Your task to perform on an android device: Open Google Chrome Image 0: 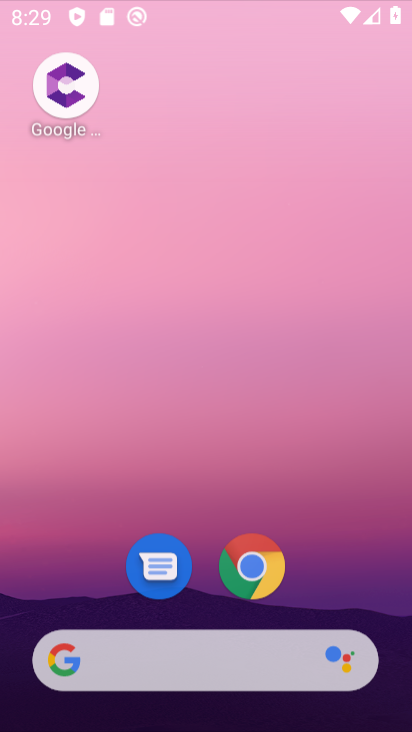
Step 0: click (271, 19)
Your task to perform on an android device: Open Google Chrome Image 1: 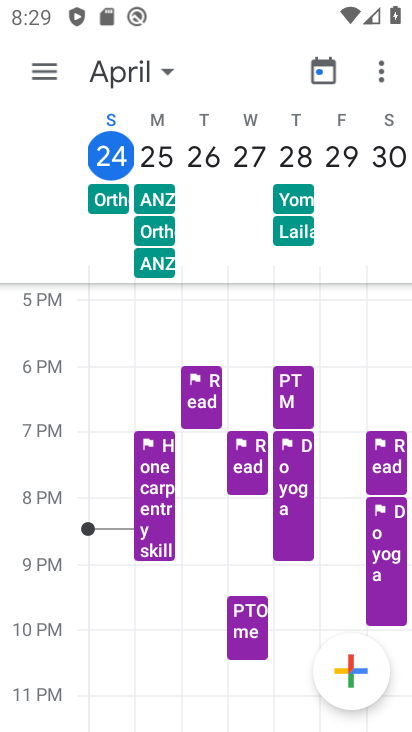
Step 1: press home button
Your task to perform on an android device: Open Google Chrome Image 2: 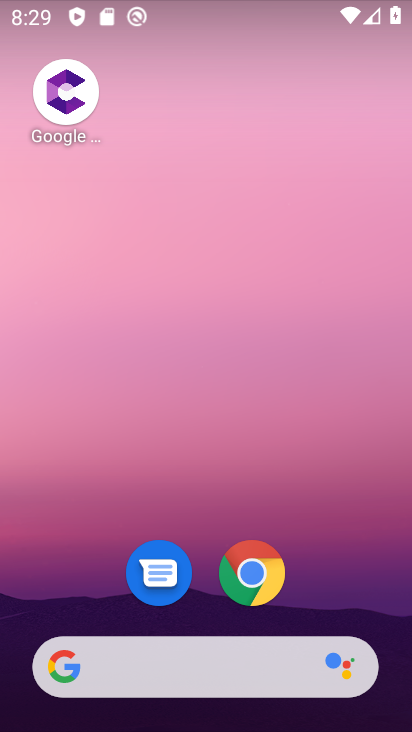
Step 2: click (251, 563)
Your task to perform on an android device: Open Google Chrome Image 3: 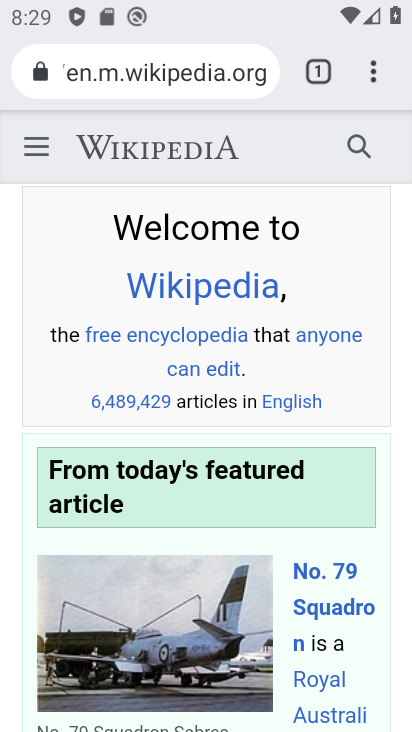
Step 3: task complete